Your task to perform on an android device: open app "Spotify: Music and Podcasts" (install if not already installed) Image 0: 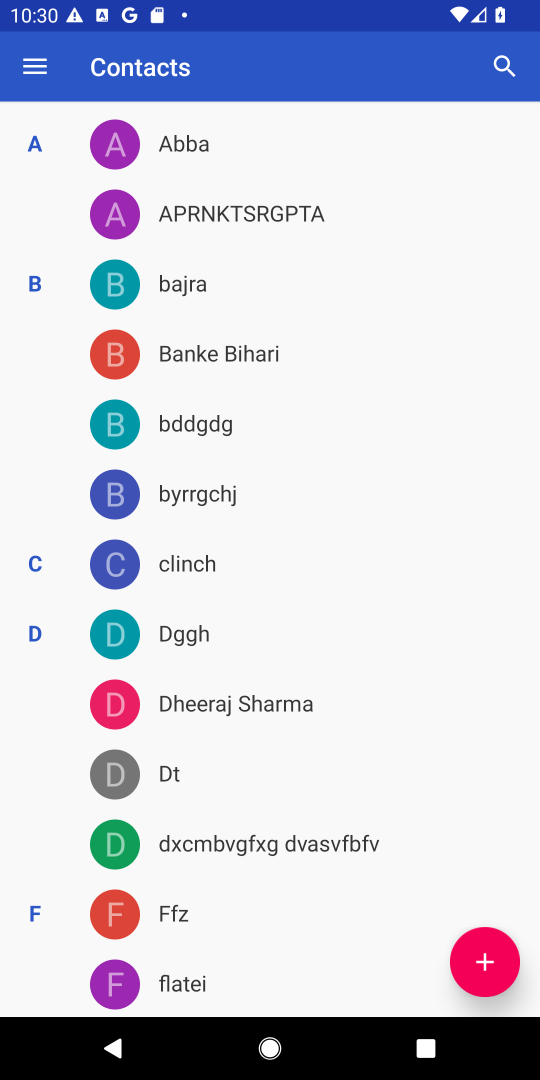
Step 0: press back button
Your task to perform on an android device: open app "Spotify: Music and Podcasts" (install if not already installed) Image 1: 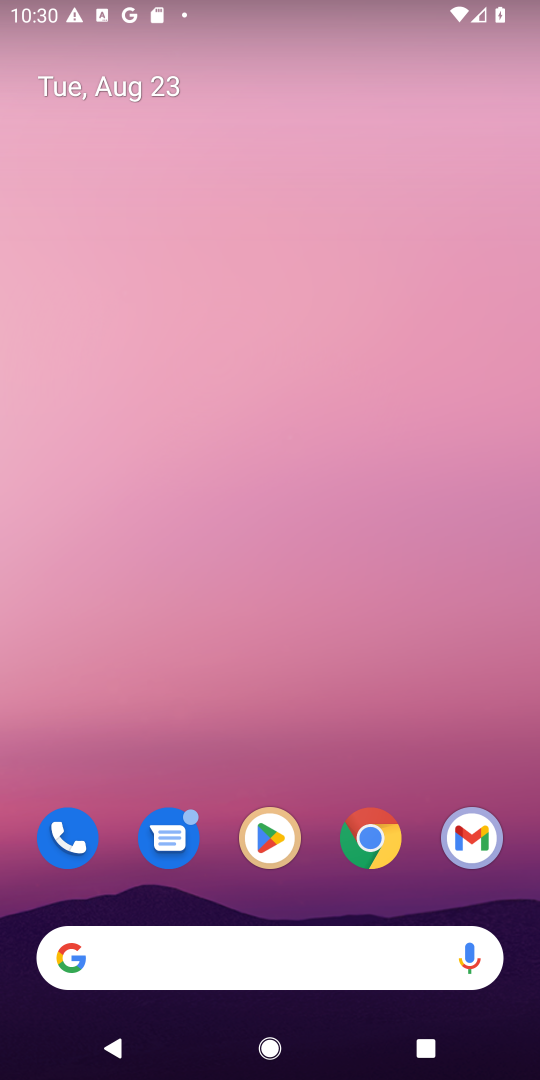
Step 1: press home button
Your task to perform on an android device: open app "Spotify: Music and Podcasts" (install if not already installed) Image 2: 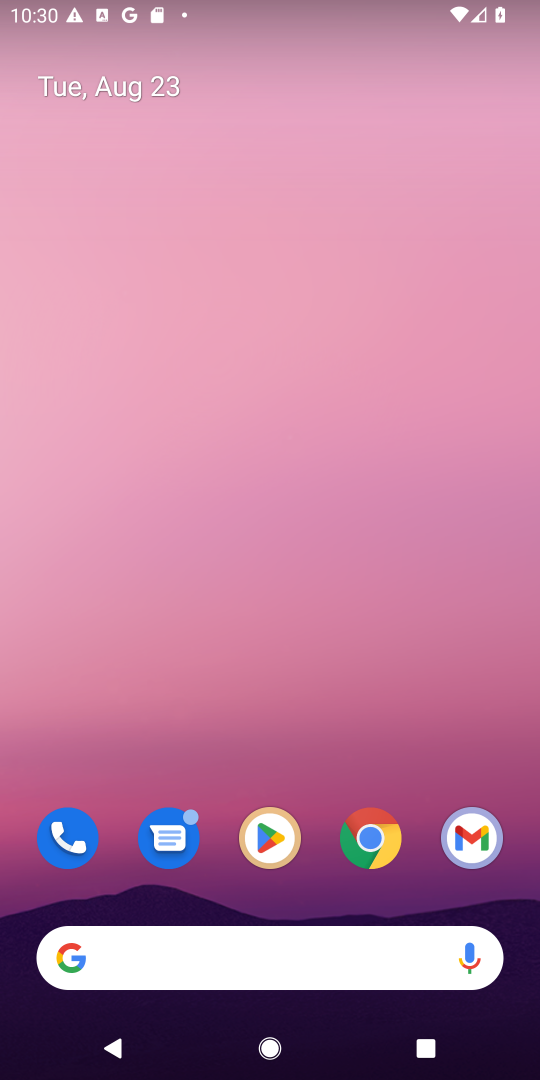
Step 2: click (259, 826)
Your task to perform on an android device: open app "Spotify: Music and Podcasts" (install if not already installed) Image 3: 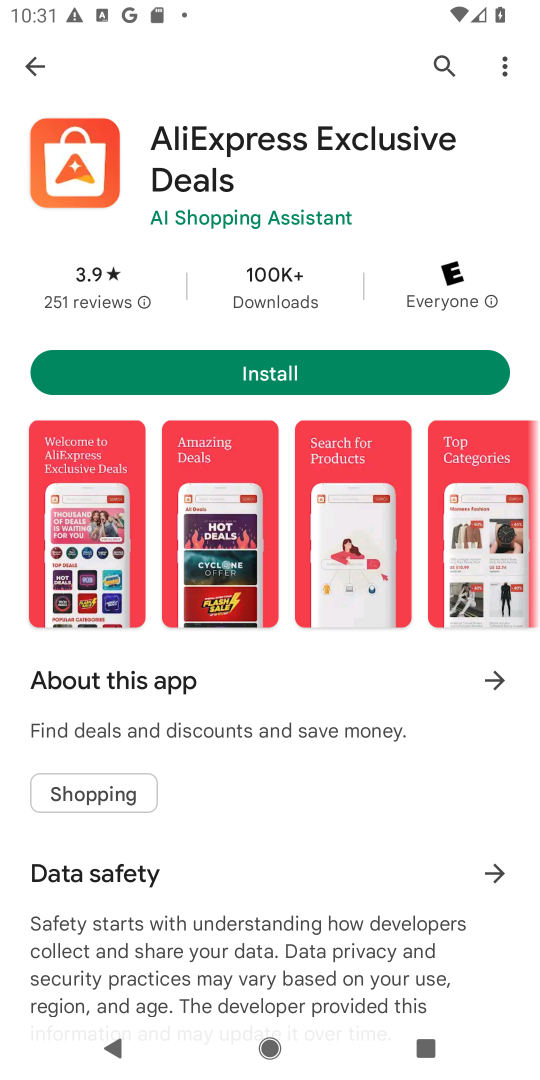
Step 3: click (449, 67)
Your task to perform on an android device: open app "Spotify: Music and Podcasts" (install if not already installed) Image 4: 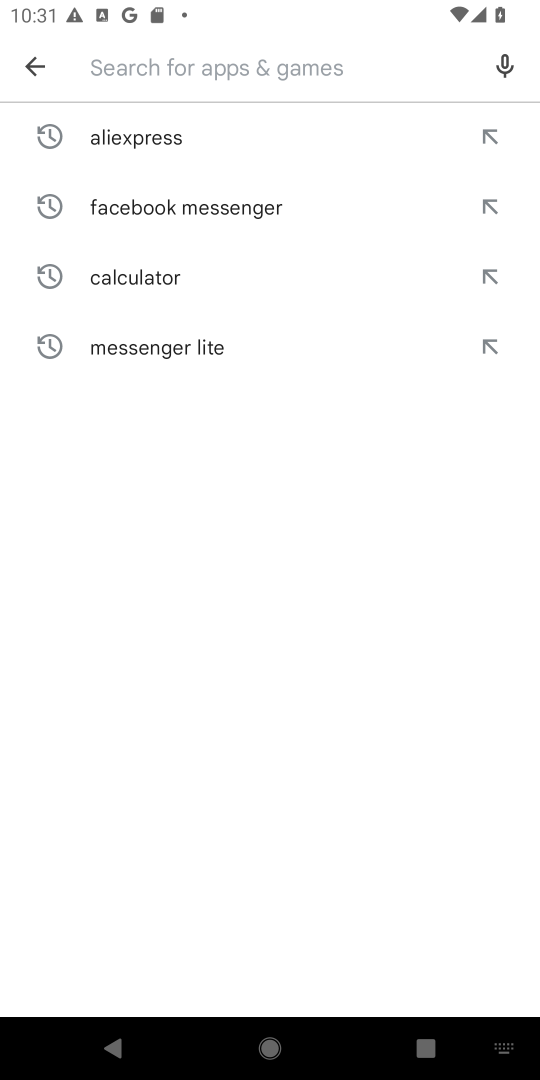
Step 4: type "Spotify: Music and Podcasts"
Your task to perform on an android device: open app "Spotify: Music and Podcasts" (install if not already installed) Image 5: 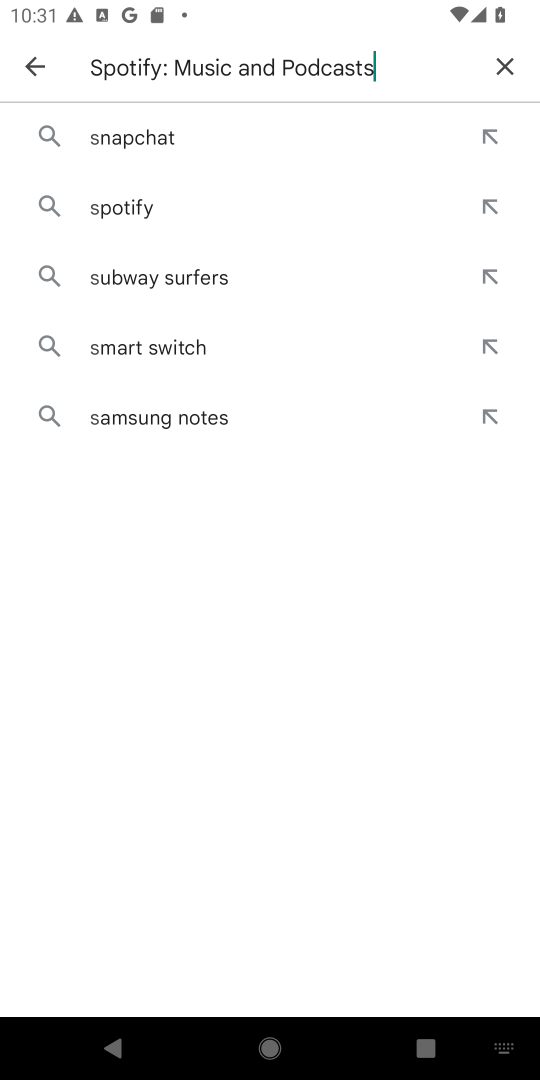
Step 5: type ""
Your task to perform on an android device: open app "Spotify: Music and Podcasts" (install if not already installed) Image 6: 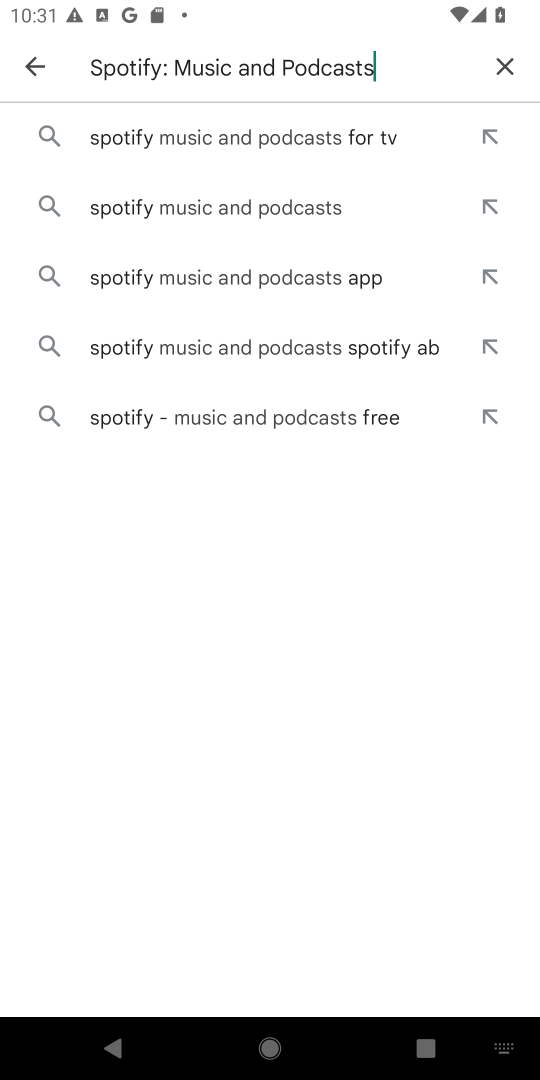
Step 6: click (276, 140)
Your task to perform on an android device: open app "Spotify: Music and Podcasts" (install if not already installed) Image 7: 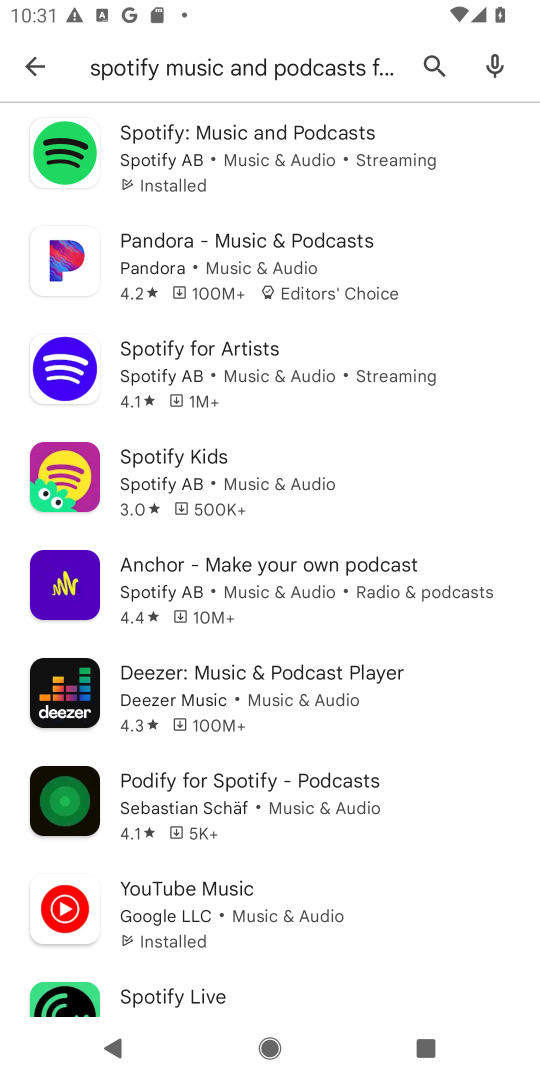
Step 7: click (276, 140)
Your task to perform on an android device: open app "Spotify: Music and Podcasts" (install if not already installed) Image 8: 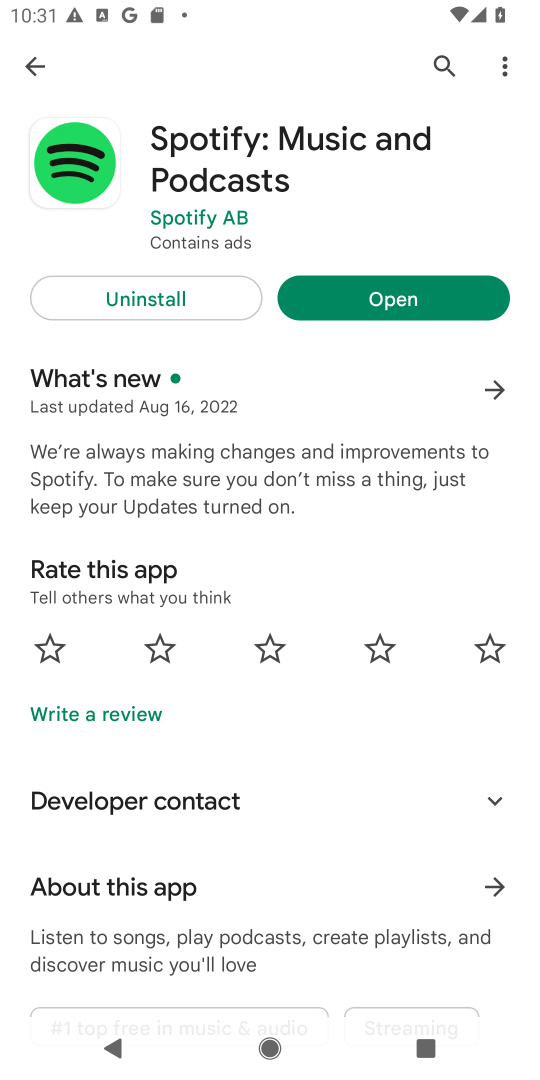
Step 8: click (364, 292)
Your task to perform on an android device: open app "Spotify: Music and Podcasts" (install if not already installed) Image 9: 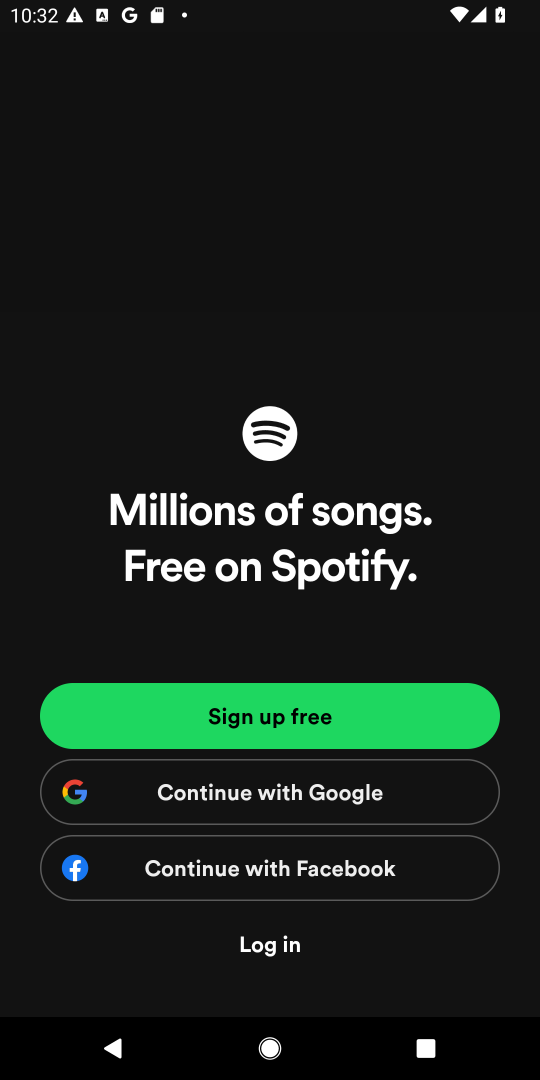
Step 9: task complete